Your task to perform on an android device: Open Google Maps and go to "Timeline" Image 0: 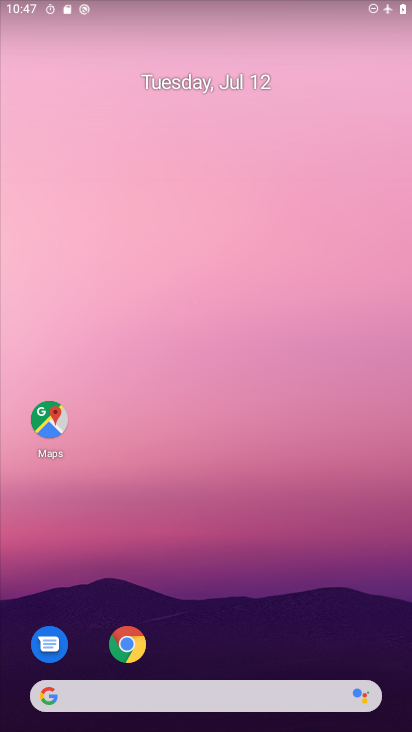
Step 0: click (46, 449)
Your task to perform on an android device: Open Google Maps and go to "Timeline" Image 1: 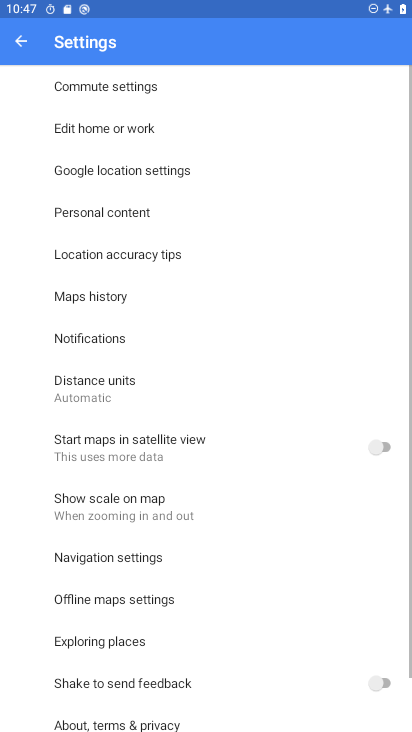
Step 1: click (24, 53)
Your task to perform on an android device: Open Google Maps and go to "Timeline" Image 2: 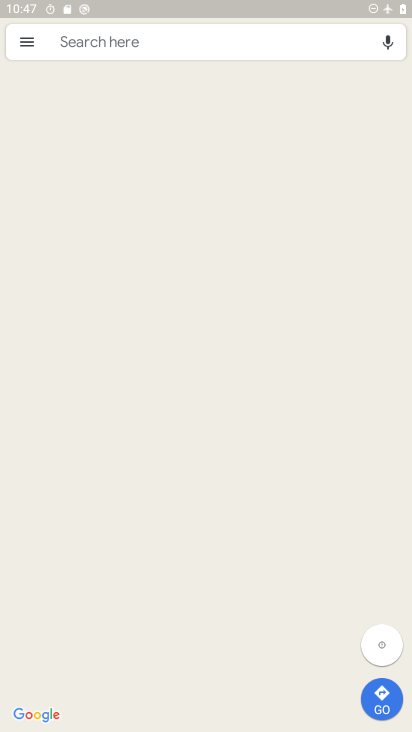
Step 2: click (24, 53)
Your task to perform on an android device: Open Google Maps and go to "Timeline" Image 3: 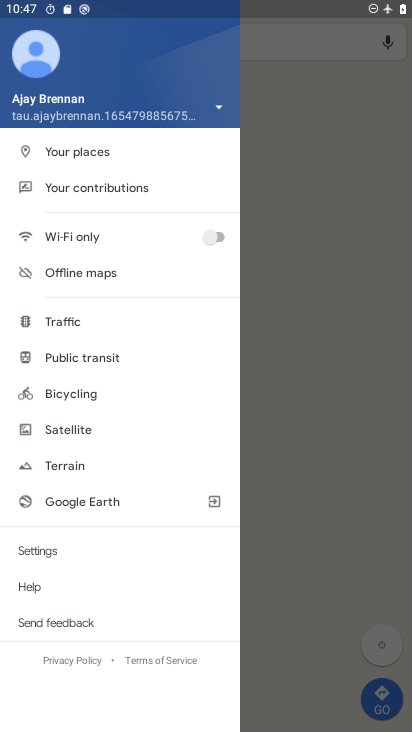
Step 3: task complete